Your task to perform on an android device: install app "Move to iOS" Image 0: 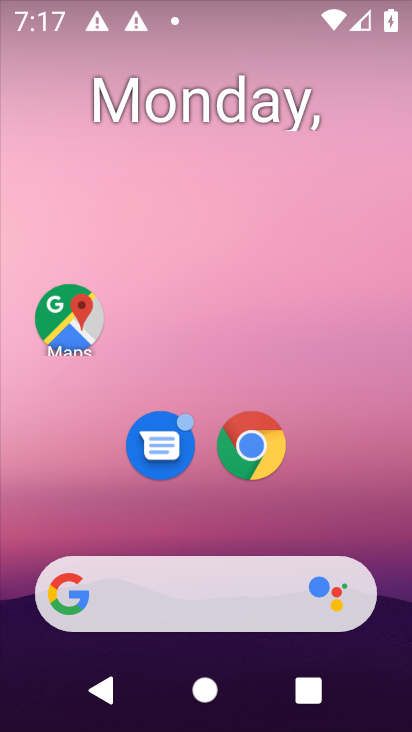
Step 0: drag from (402, 539) to (260, 51)
Your task to perform on an android device: install app "Move to iOS" Image 1: 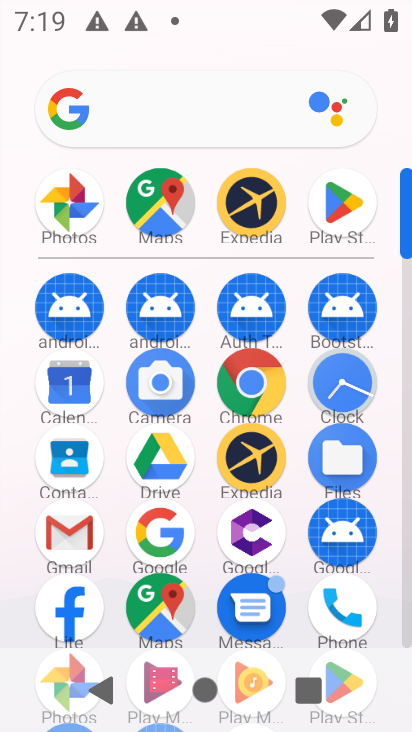
Step 1: click (349, 190)
Your task to perform on an android device: install app "Move to iOS" Image 2: 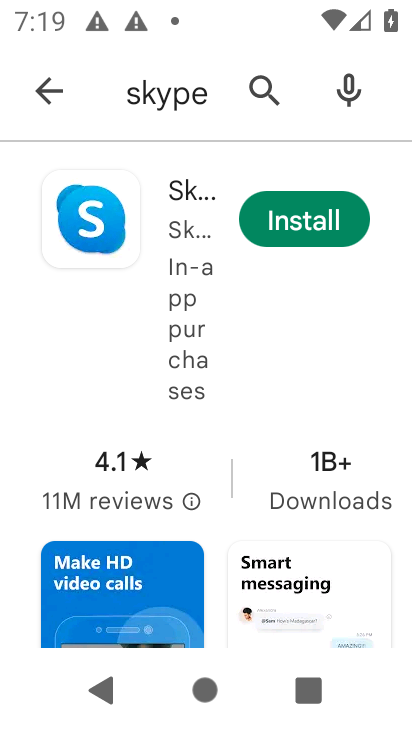
Step 2: press back button
Your task to perform on an android device: install app "Move to iOS" Image 3: 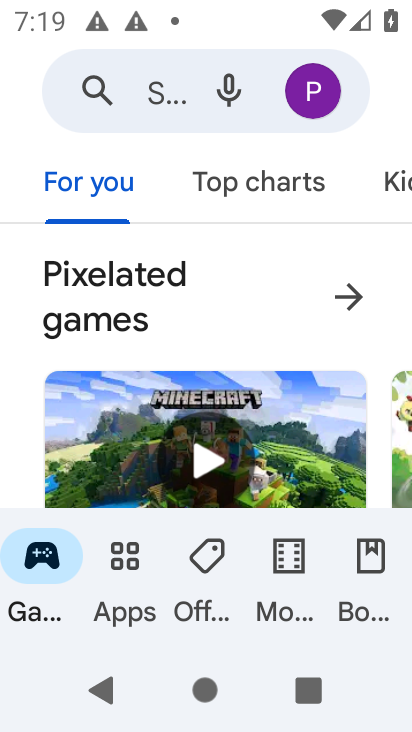
Step 3: click (158, 96)
Your task to perform on an android device: install app "Move to iOS" Image 4: 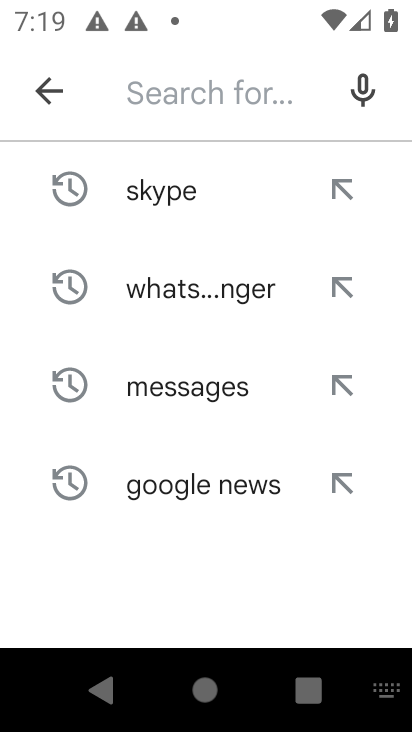
Step 4: type "Move to iOS"
Your task to perform on an android device: install app "Move to iOS" Image 5: 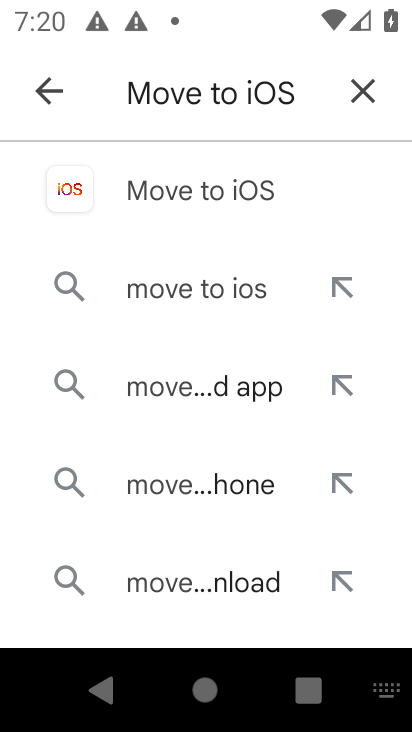
Step 5: click (200, 198)
Your task to perform on an android device: install app "Move to iOS" Image 6: 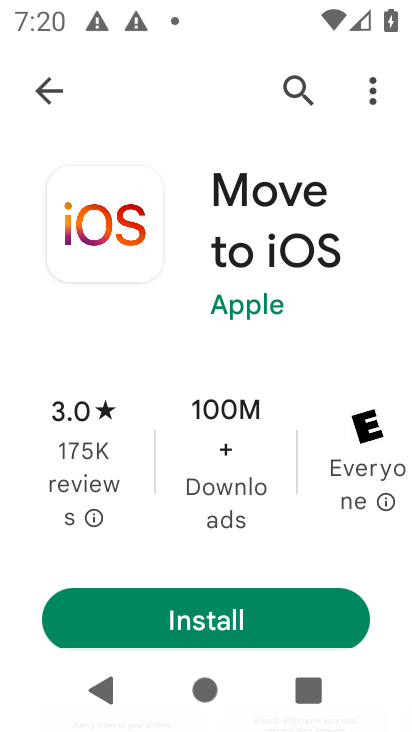
Step 6: click (200, 605)
Your task to perform on an android device: install app "Move to iOS" Image 7: 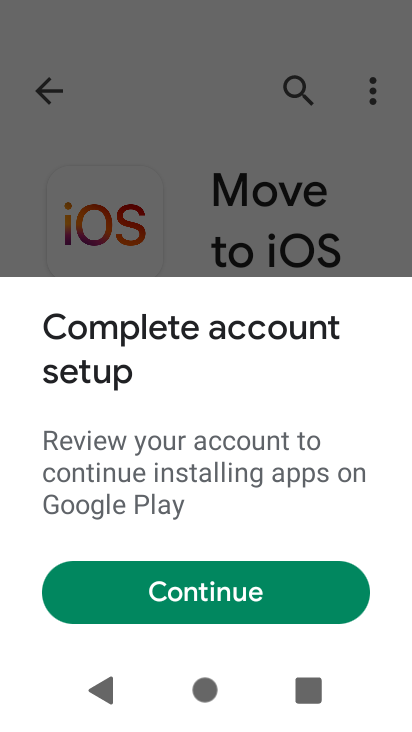
Step 7: click (149, 603)
Your task to perform on an android device: install app "Move to iOS" Image 8: 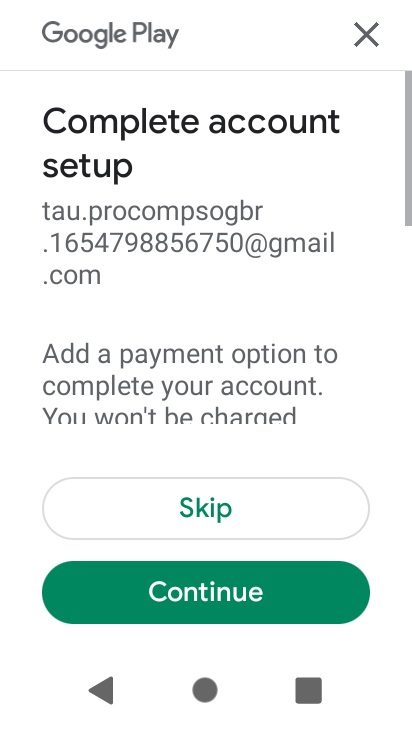
Step 8: click (205, 500)
Your task to perform on an android device: install app "Move to iOS" Image 9: 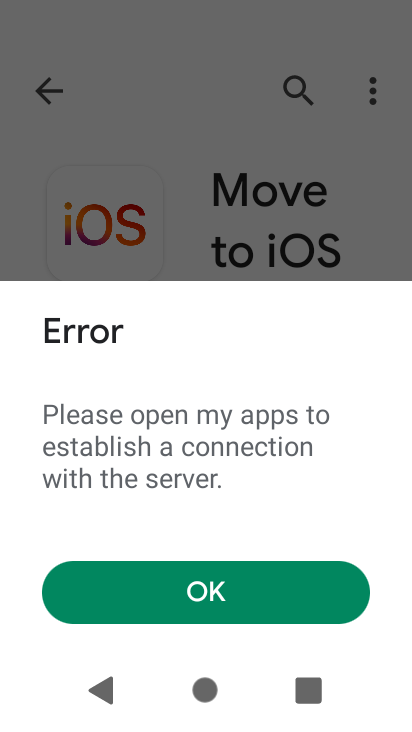
Step 9: task complete